Your task to perform on an android device: Is it going to rain tomorrow? Image 0: 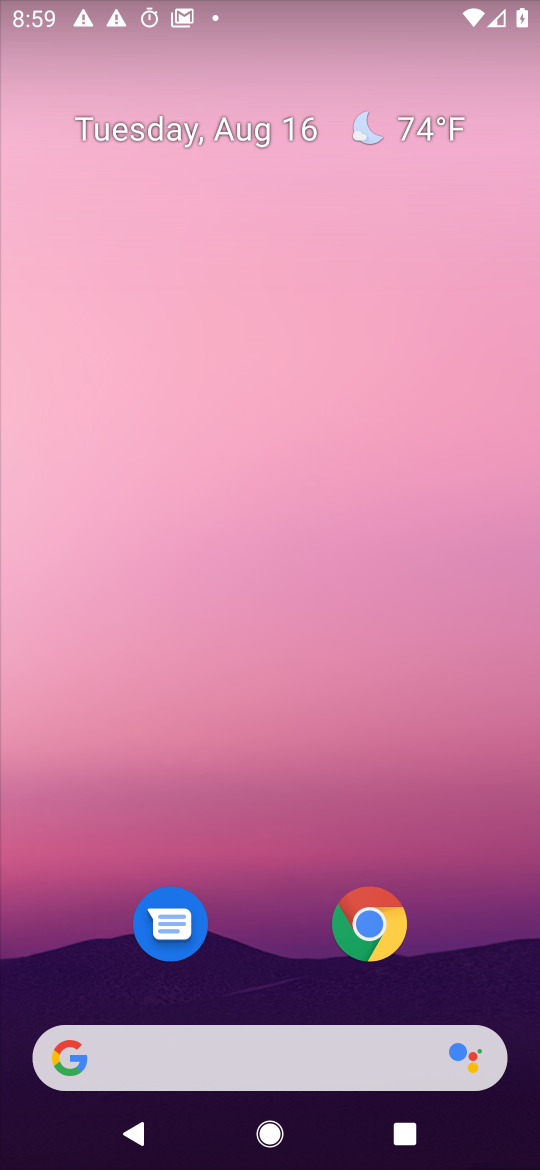
Step 0: click (247, 1072)
Your task to perform on an android device: Is it going to rain tomorrow? Image 1: 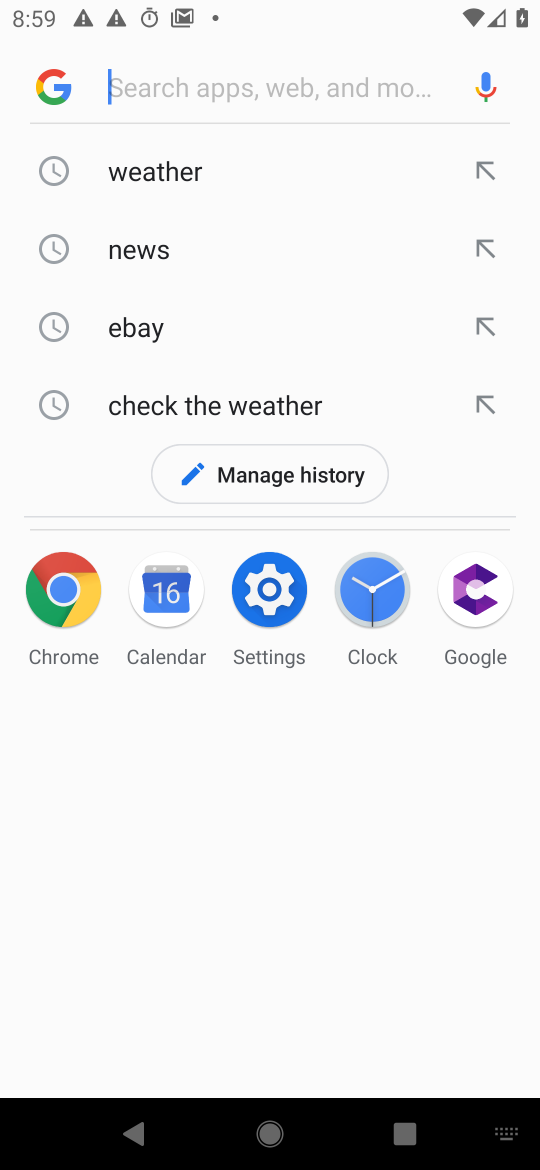
Step 1: click (172, 174)
Your task to perform on an android device: Is it going to rain tomorrow? Image 2: 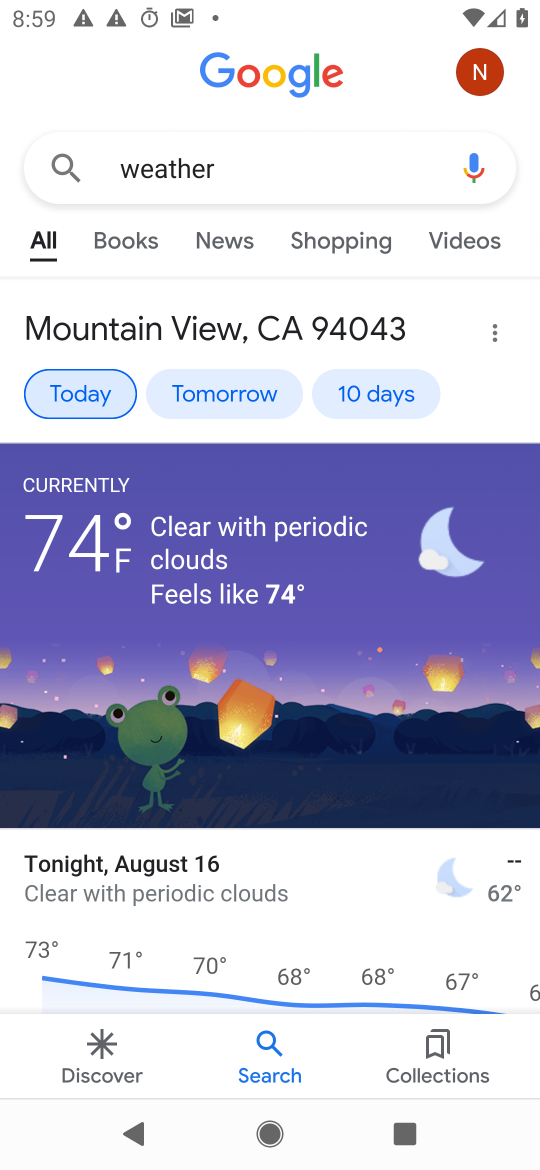
Step 2: click (228, 381)
Your task to perform on an android device: Is it going to rain tomorrow? Image 3: 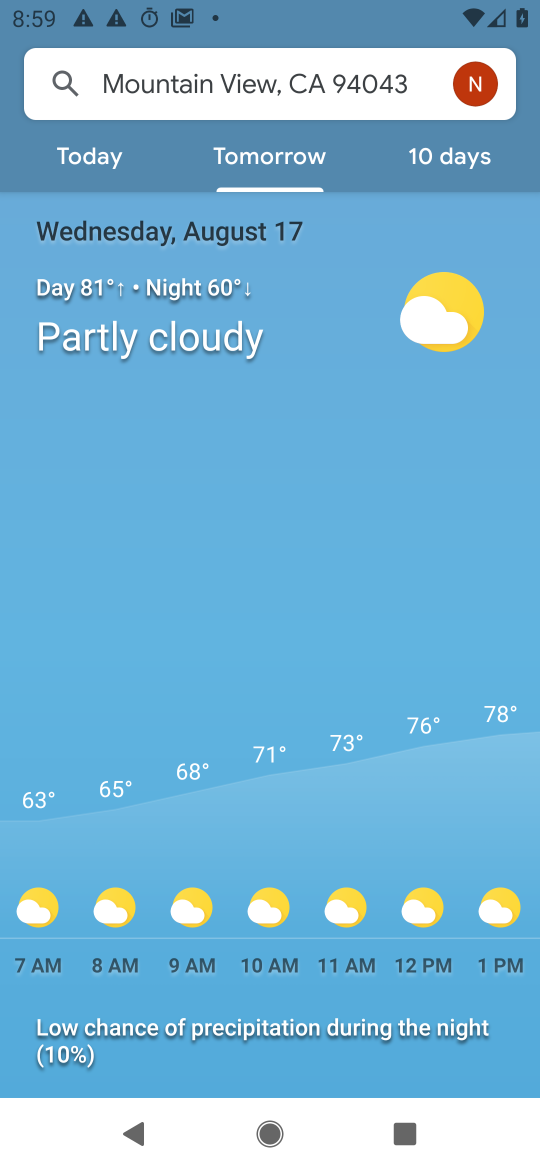
Step 3: task complete